Your task to perform on an android device: Open Maps and search for coffee Image 0: 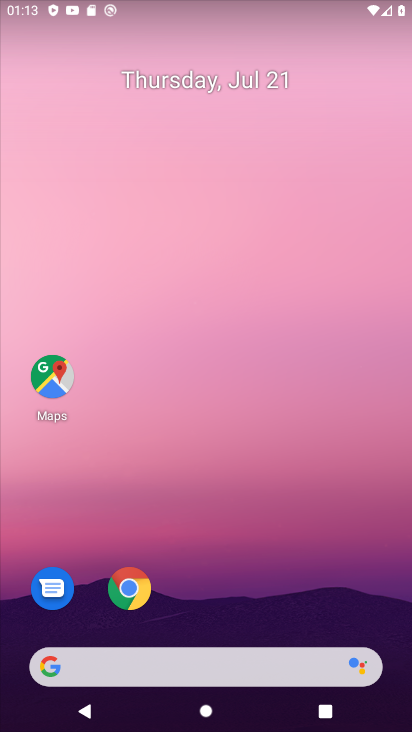
Step 0: click (60, 390)
Your task to perform on an android device: Open Maps and search for coffee Image 1: 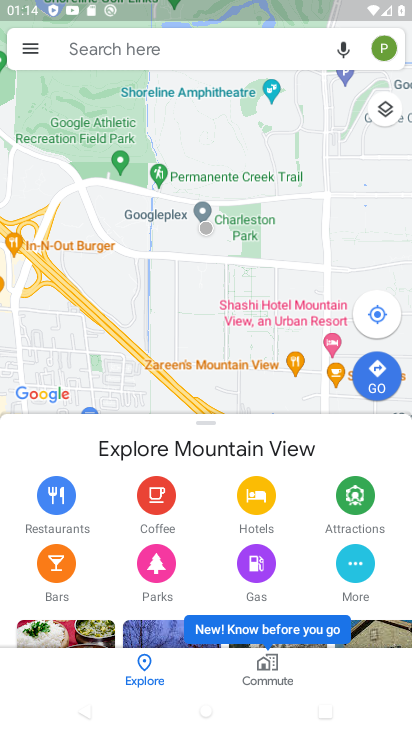
Step 1: click (173, 54)
Your task to perform on an android device: Open Maps and search for coffee Image 2: 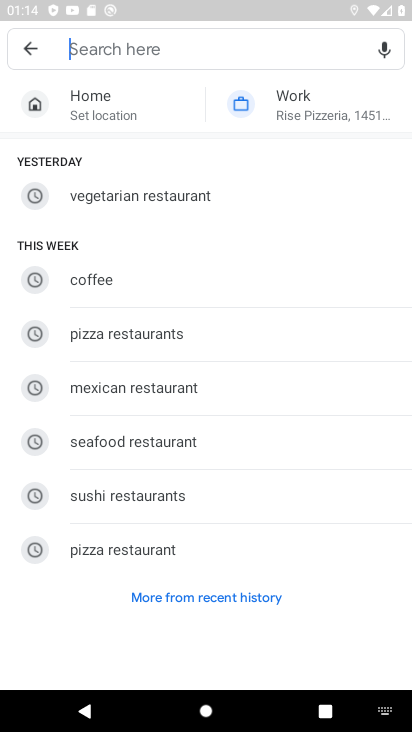
Step 2: type "coffee"
Your task to perform on an android device: Open Maps and search for coffee Image 3: 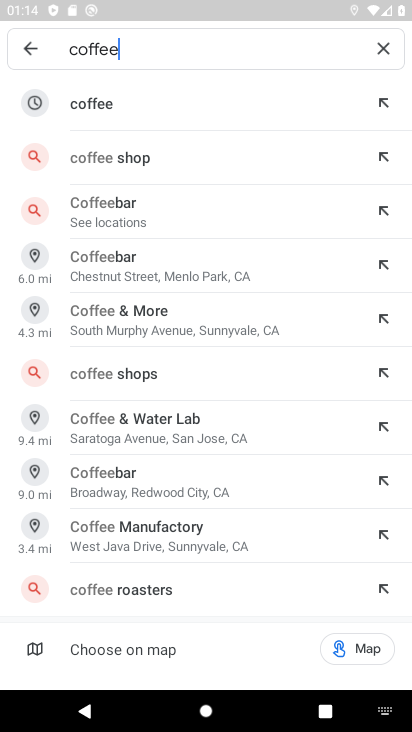
Step 3: click (175, 93)
Your task to perform on an android device: Open Maps and search for coffee Image 4: 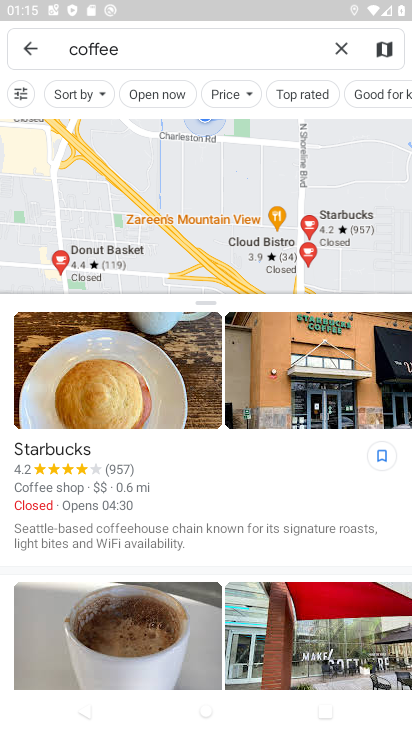
Step 4: task complete